Your task to perform on an android device: Go to ESPN.com Image 0: 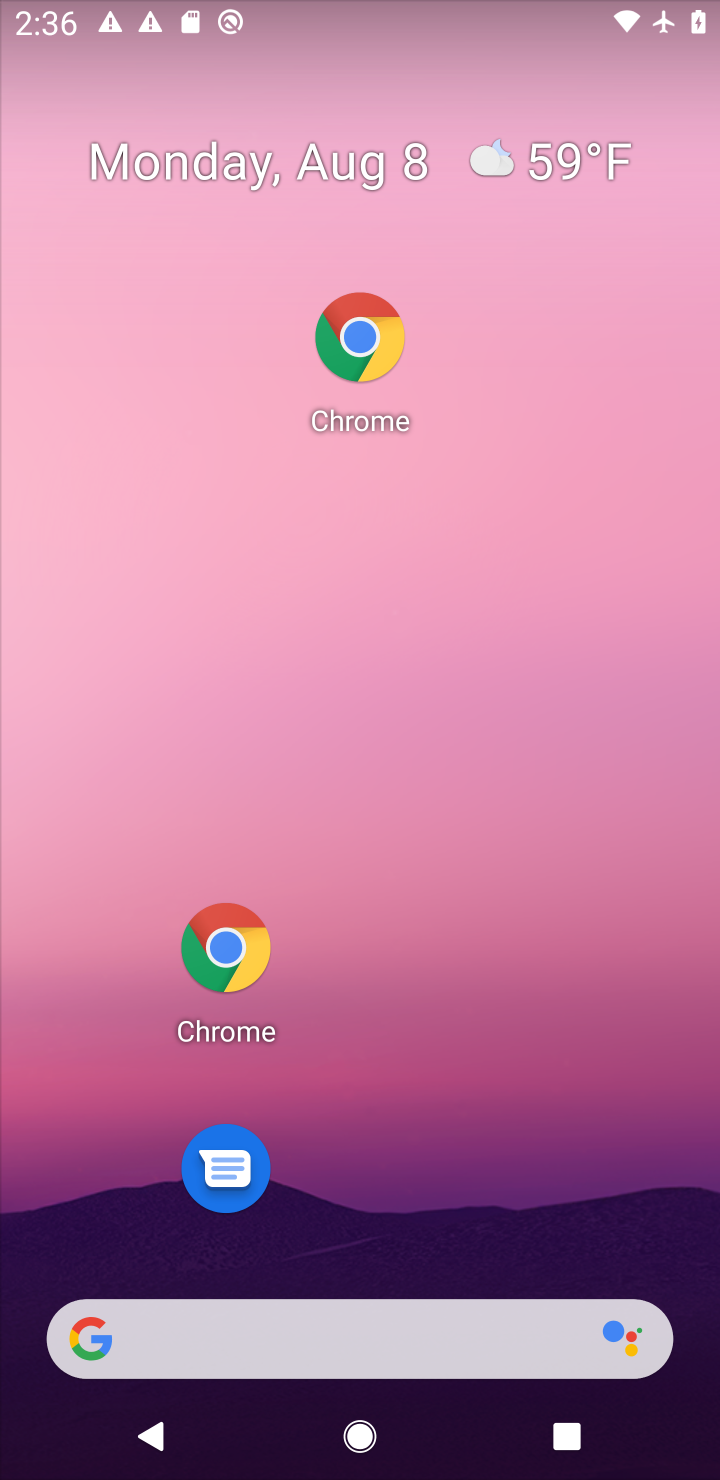
Step 0: click (254, 971)
Your task to perform on an android device: Go to ESPN.com Image 1: 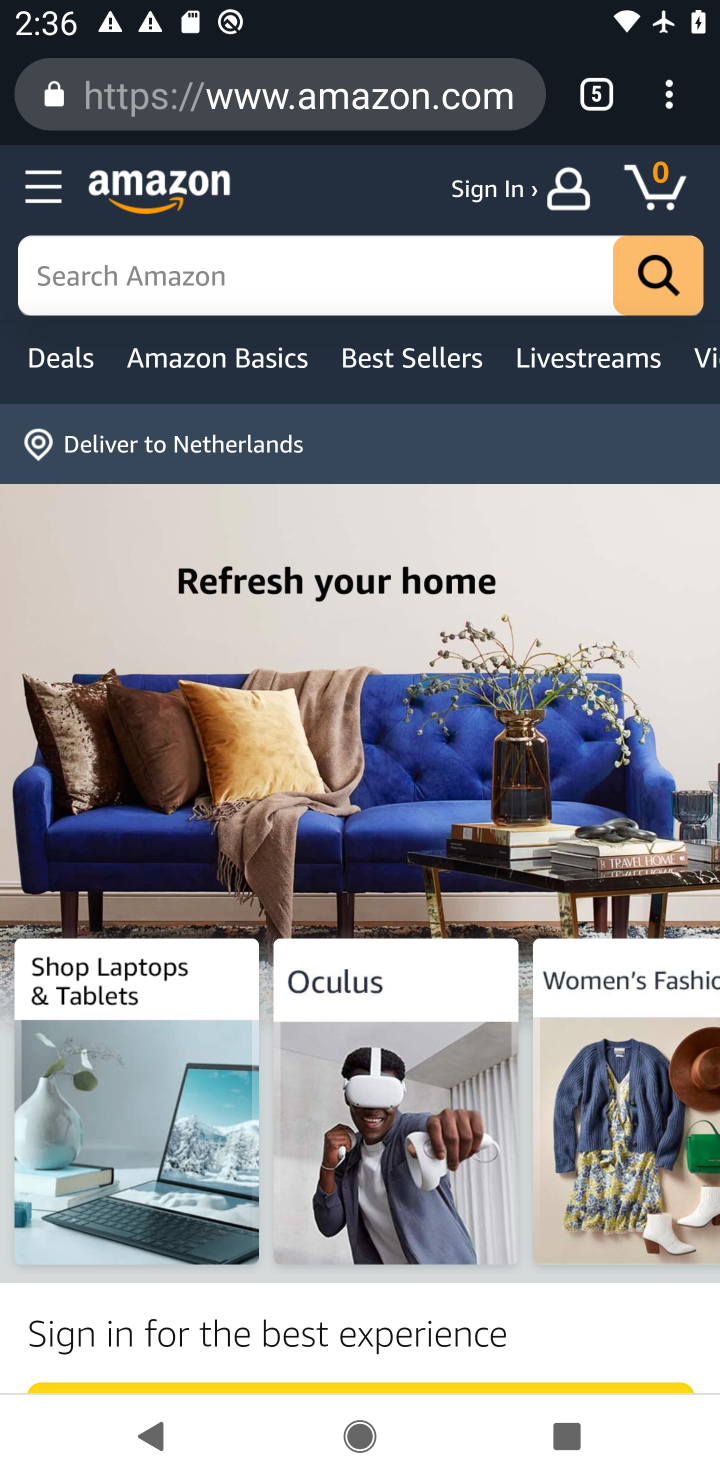
Step 1: click (191, 114)
Your task to perform on an android device: Go to ESPN.com Image 2: 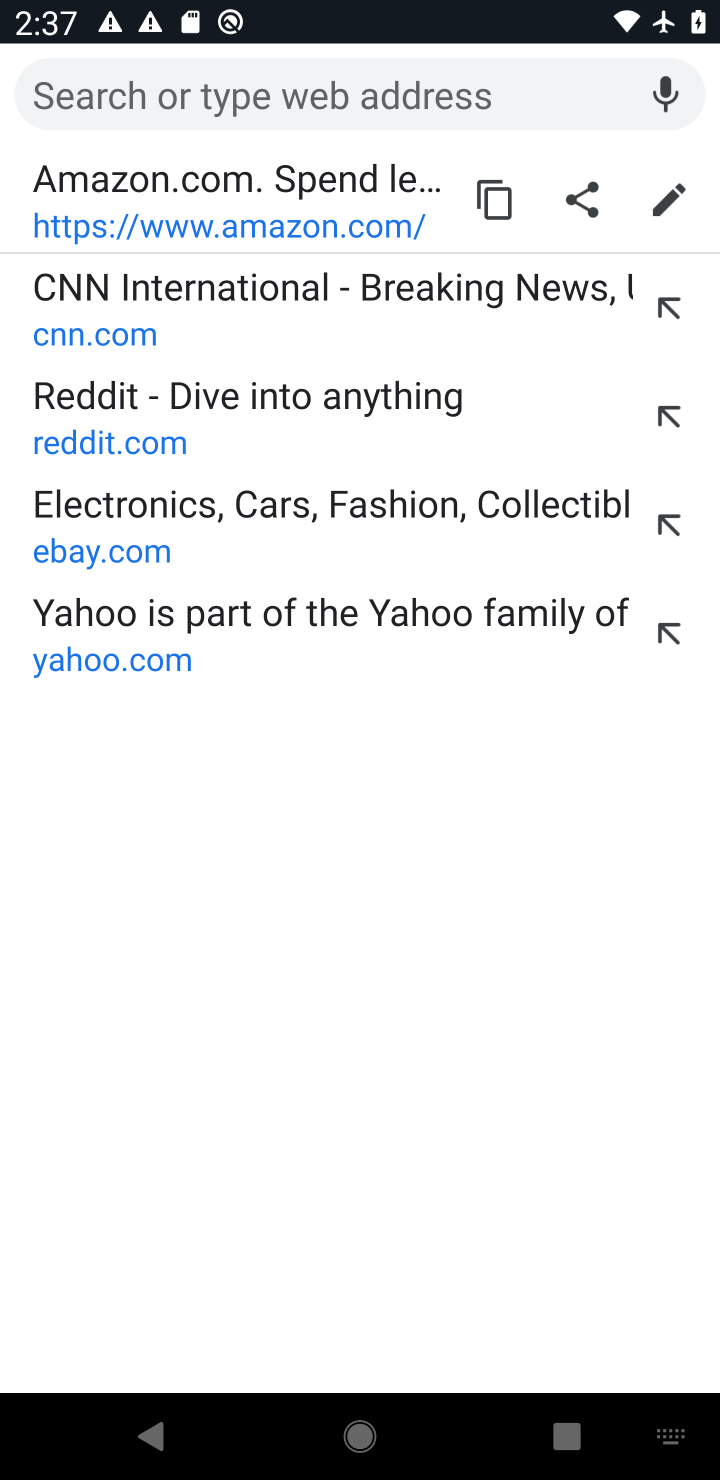
Step 2: type "espn.com"
Your task to perform on an android device: Go to ESPN.com Image 3: 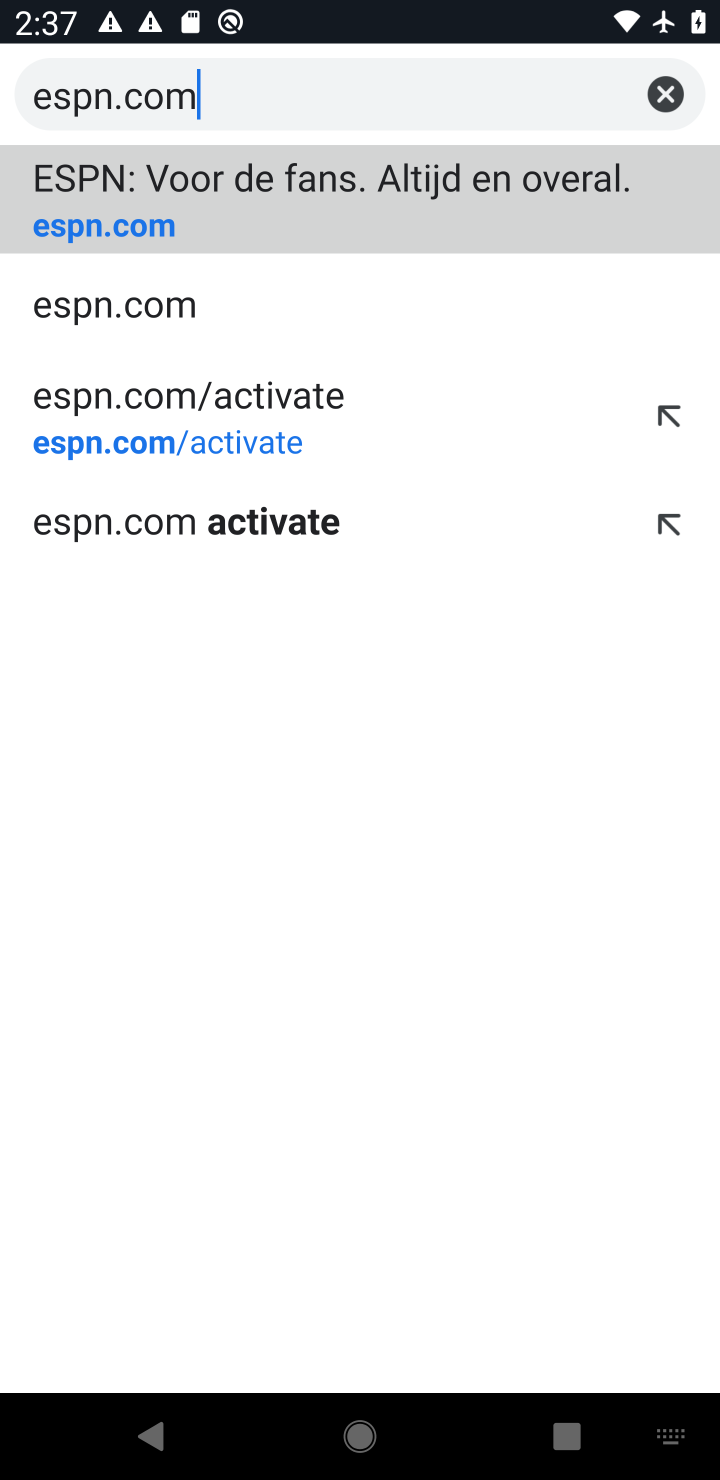
Step 3: click (385, 215)
Your task to perform on an android device: Go to ESPN.com Image 4: 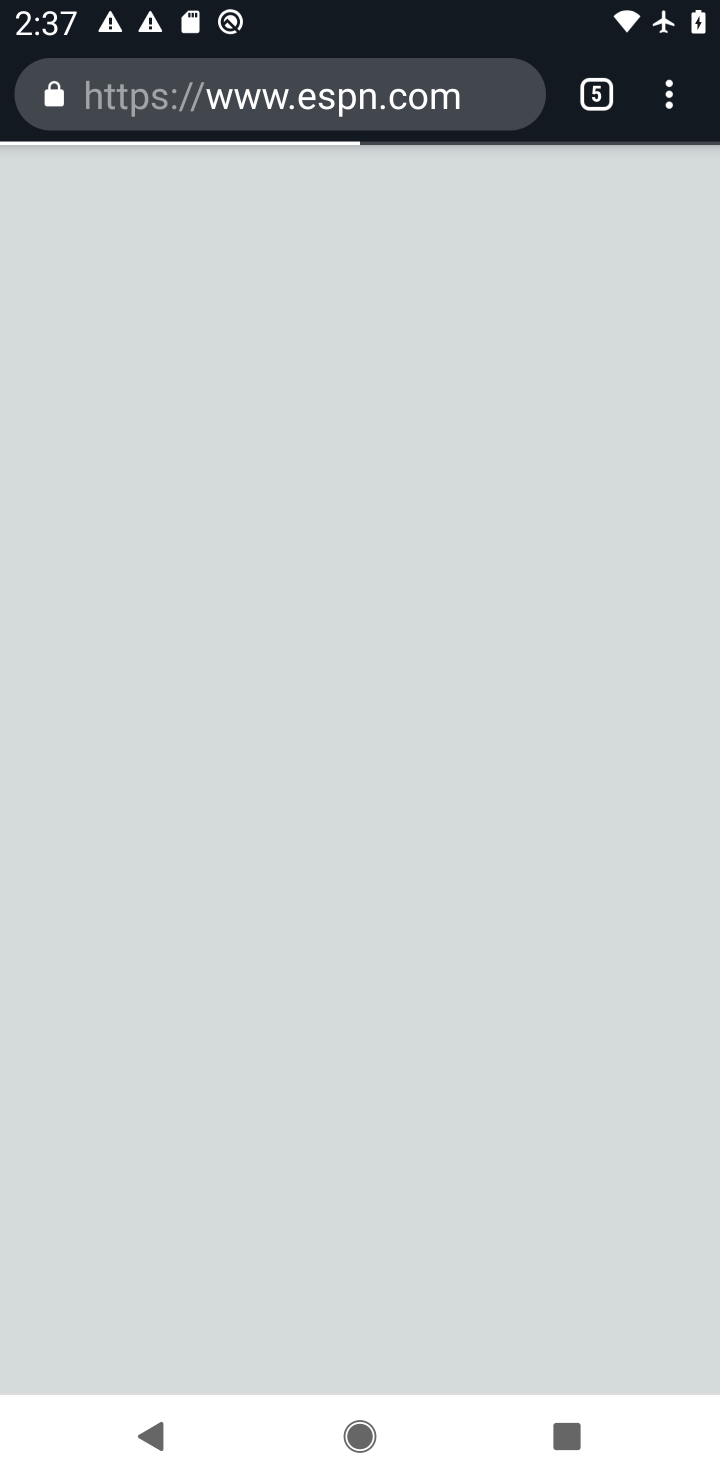
Step 4: task complete